Your task to perform on an android device: When is my next meeting? Image 0: 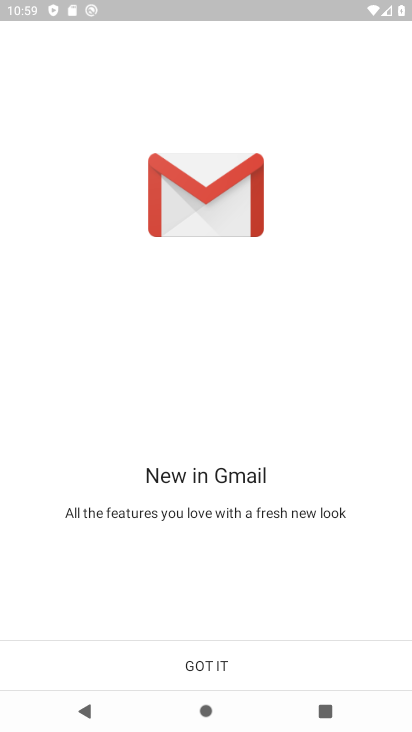
Step 0: press home button
Your task to perform on an android device: When is my next meeting? Image 1: 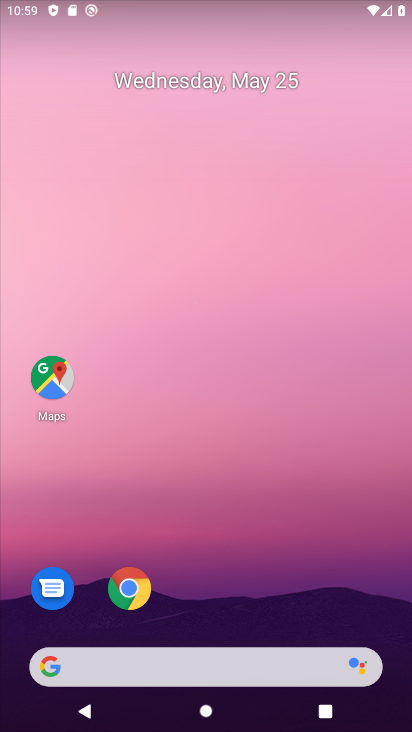
Step 1: drag from (200, 611) to (294, 250)
Your task to perform on an android device: When is my next meeting? Image 2: 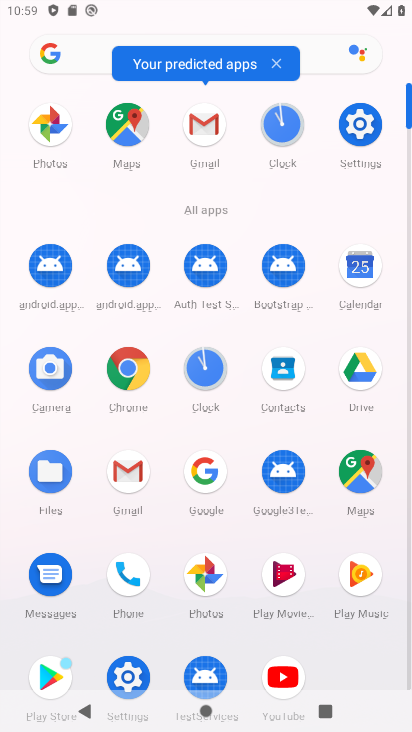
Step 2: click (352, 283)
Your task to perform on an android device: When is my next meeting? Image 3: 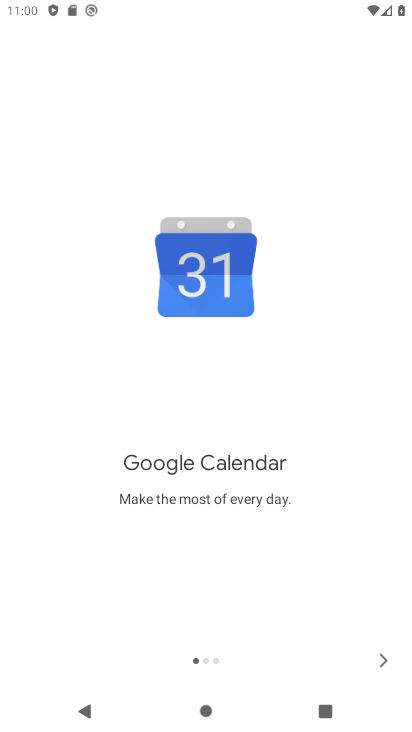
Step 3: click (381, 660)
Your task to perform on an android device: When is my next meeting? Image 4: 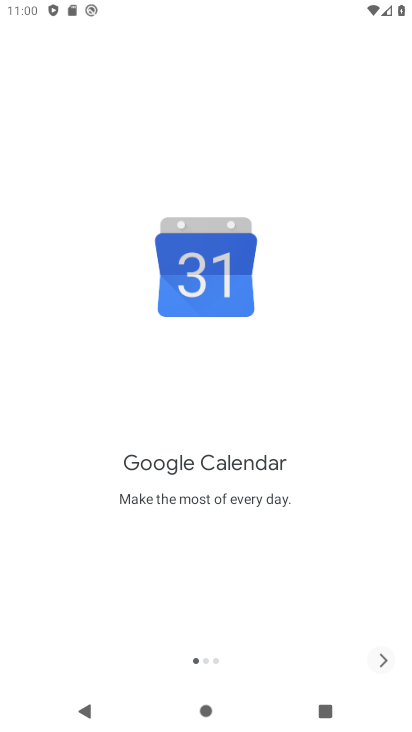
Step 4: click (380, 659)
Your task to perform on an android device: When is my next meeting? Image 5: 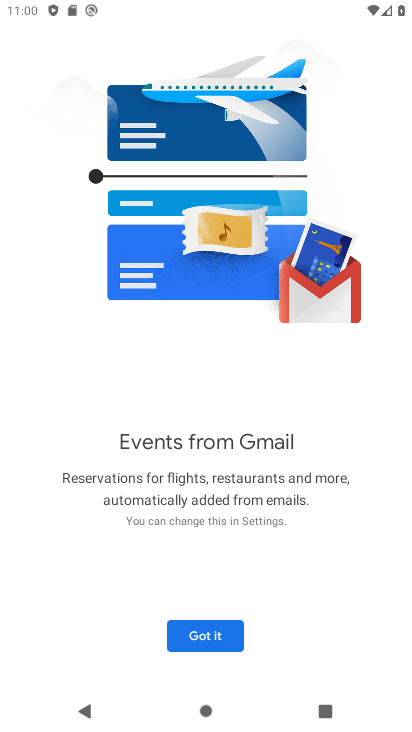
Step 5: click (203, 633)
Your task to perform on an android device: When is my next meeting? Image 6: 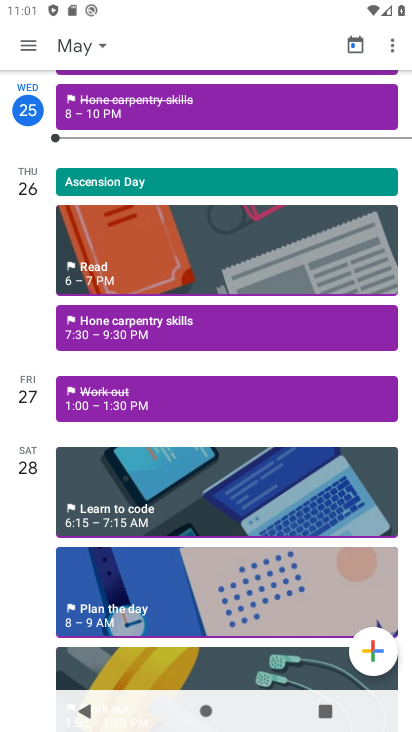
Step 6: click (92, 46)
Your task to perform on an android device: When is my next meeting? Image 7: 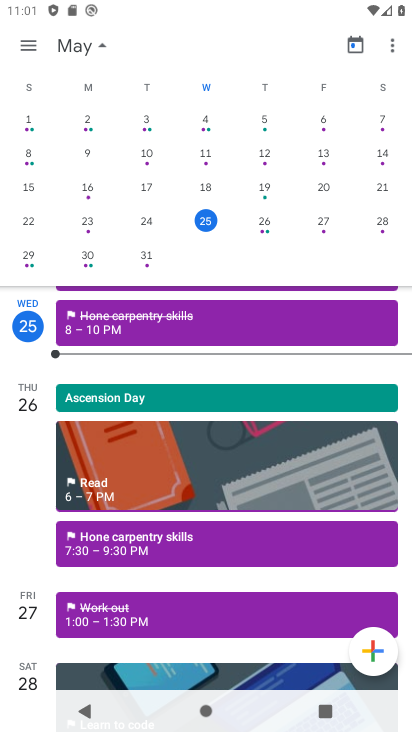
Step 7: click (255, 225)
Your task to perform on an android device: When is my next meeting? Image 8: 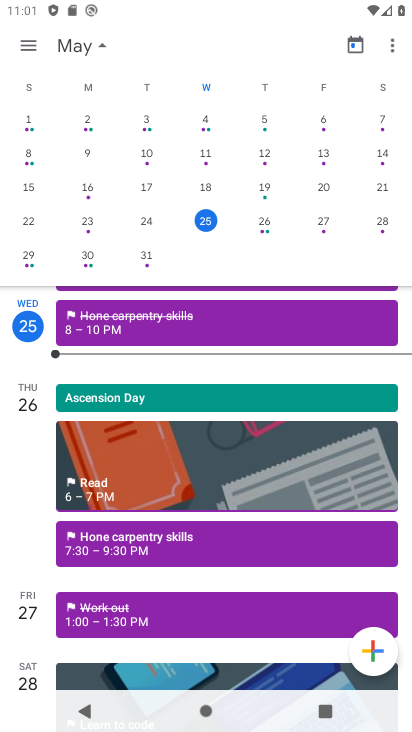
Step 8: click (310, 222)
Your task to perform on an android device: When is my next meeting? Image 9: 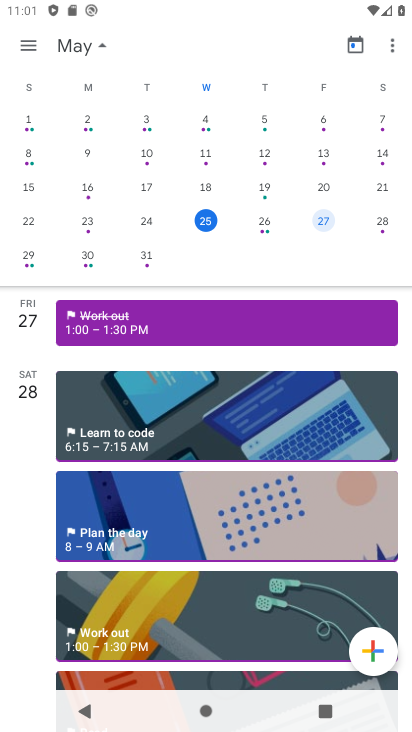
Step 9: task complete